Your task to perform on an android device: change the upload size in google photos Image 0: 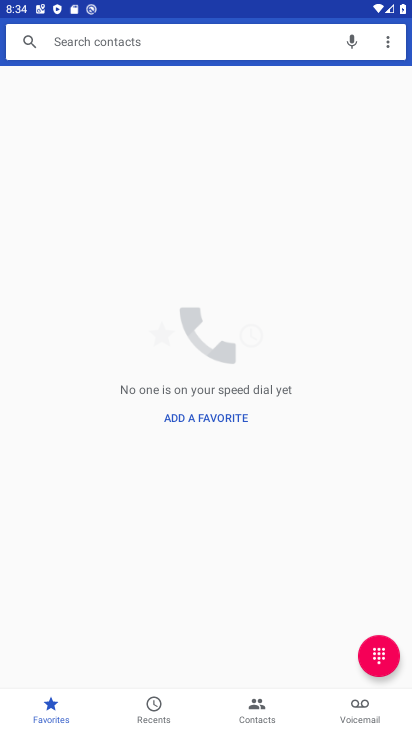
Step 0: press home button
Your task to perform on an android device: change the upload size in google photos Image 1: 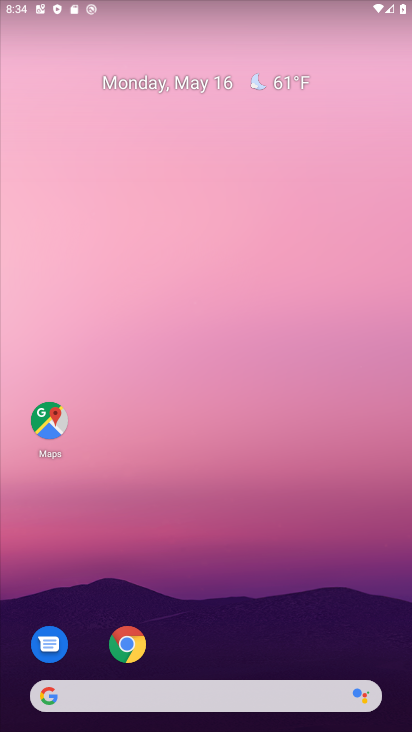
Step 1: drag from (209, 641) to (196, 98)
Your task to perform on an android device: change the upload size in google photos Image 2: 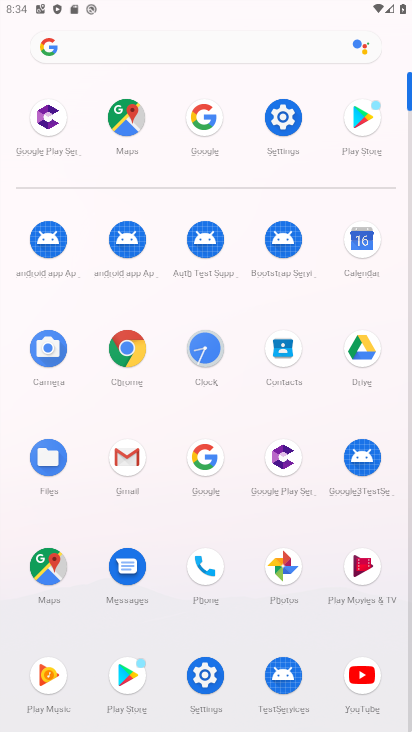
Step 2: click (288, 560)
Your task to perform on an android device: change the upload size in google photos Image 3: 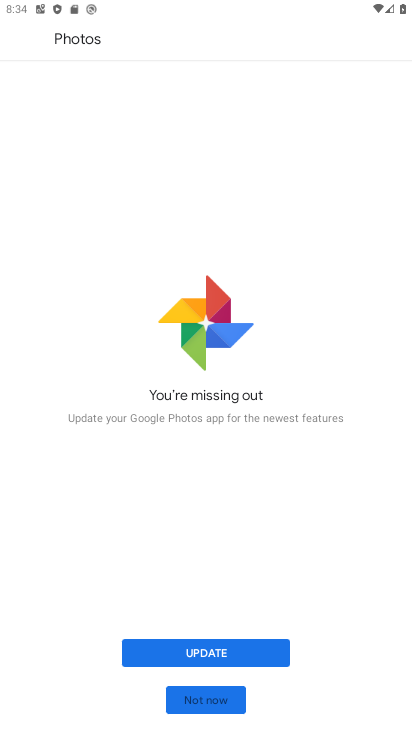
Step 3: click (188, 655)
Your task to perform on an android device: change the upload size in google photos Image 4: 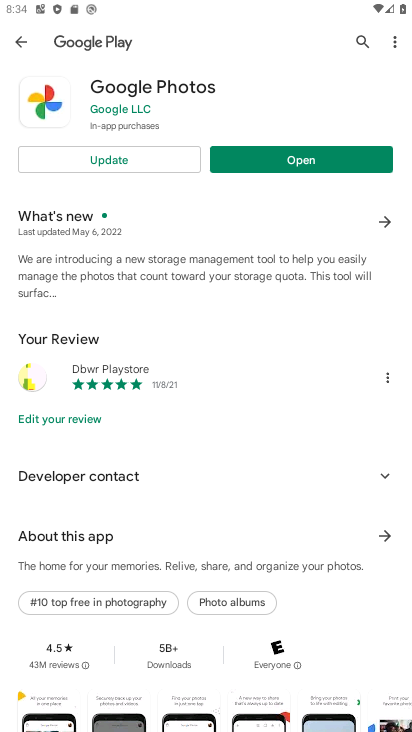
Step 4: click (150, 160)
Your task to perform on an android device: change the upload size in google photos Image 5: 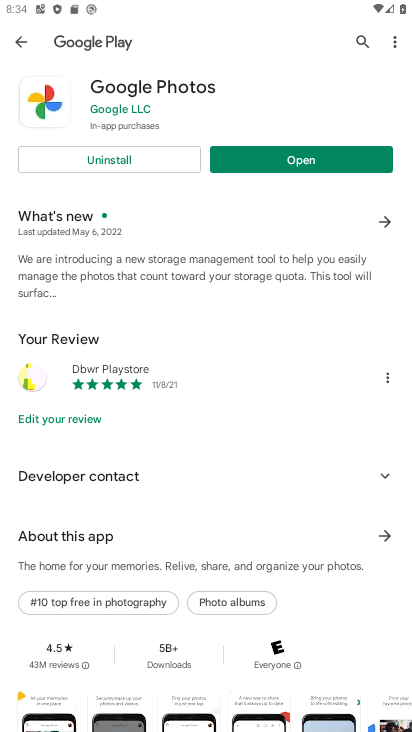
Step 5: click (277, 160)
Your task to perform on an android device: change the upload size in google photos Image 6: 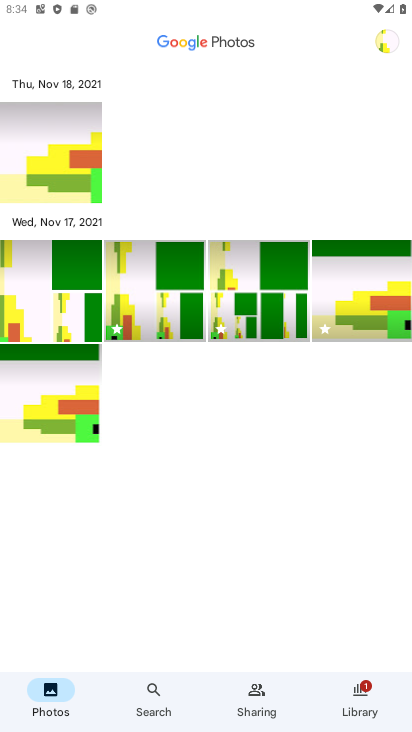
Step 6: click (390, 40)
Your task to perform on an android device: change the upload size in google photos Image 7: 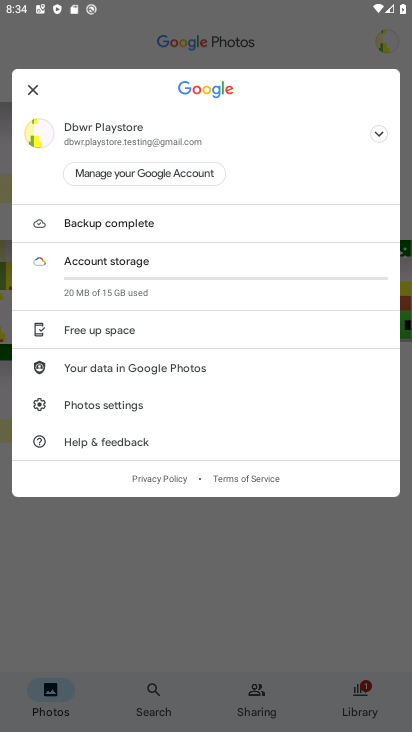
Step 7: click (111, 408)
Your task to perform on an android device: change the upload size in google photos Image 8: 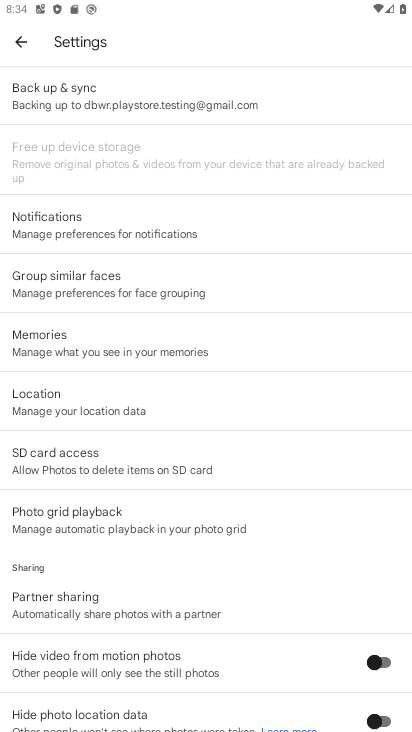
Step 8: click (93, 95)
Your task to perform on an android device: change the upload size in google photos Image 9: 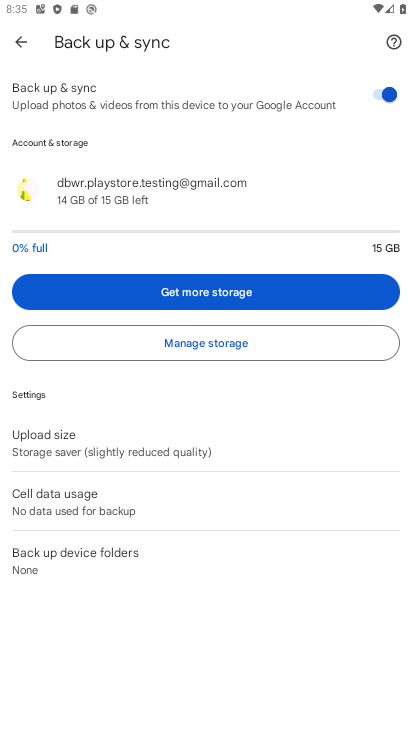
Step 9: click (97, 445)
Your task to perform on an android device: change the upload size in google photos Image 10: 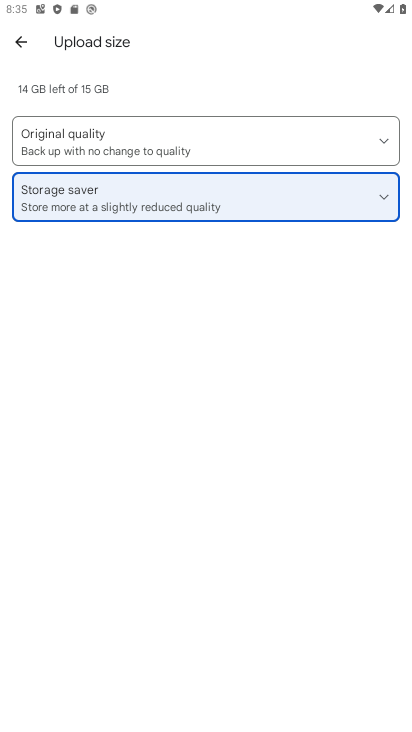
Step 10: click (69, 131)
Your task to perform on an android device: change the upload size in google photos Image 11: 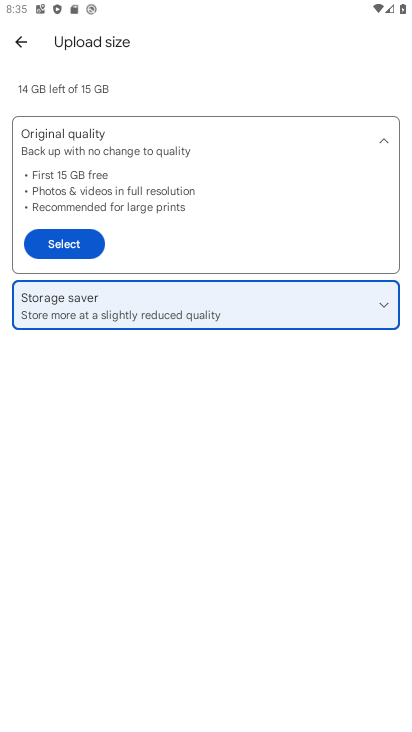
Step 11: click (74, 247)
Your task to perform on an android device: change the upload size in google photos Image 12: 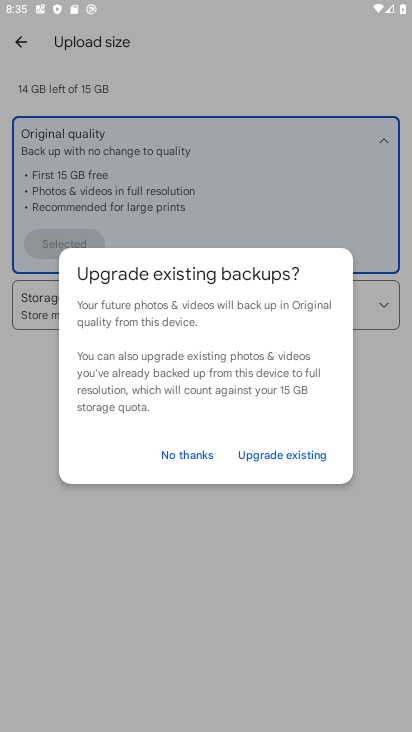
Step 12: click (188, 449)
Your task to perform on an android device: change the upload size in google photos Image 13: 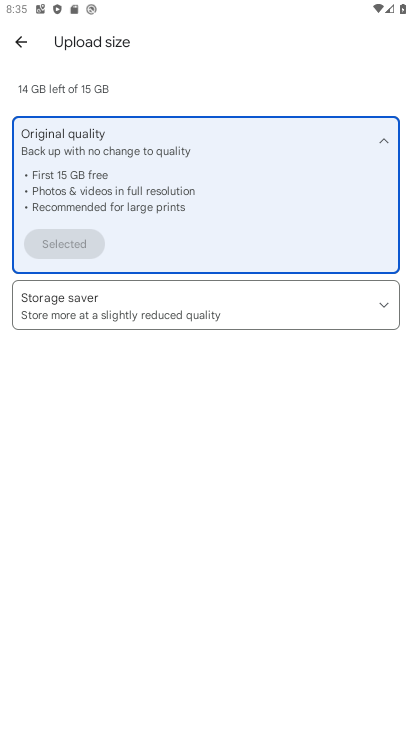
Step 13: task complete